Your task to perform on an android device: see tabs open on other devices in the chrome app Image 0: 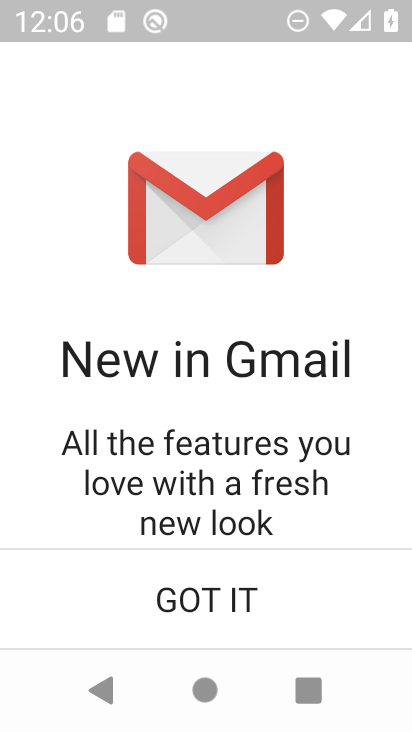
Step 0: press home button
Your task to perform on an android device: see tabs open on other devices in the chrome app Image 1: 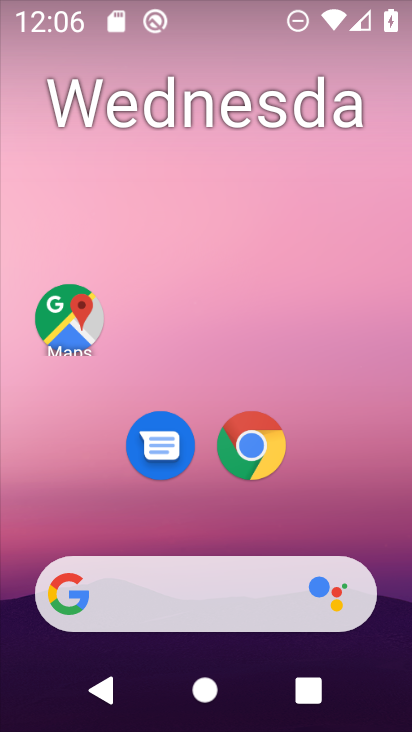
Step 1: click (265, 452)
Your task to perform on an android device: see tabs open on other devices in the chrome app Image 2: 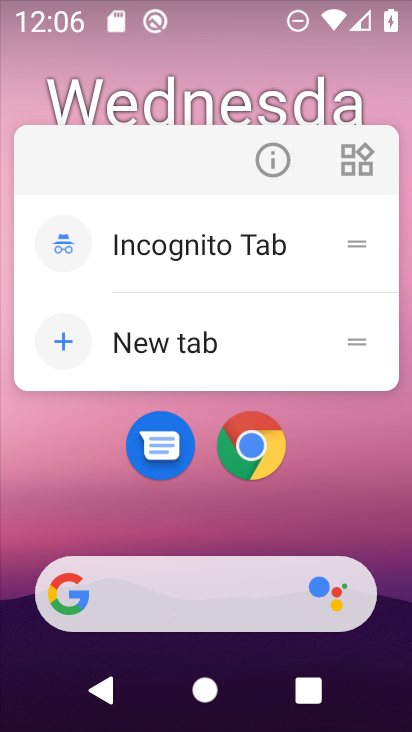
Step 2: click (264, 451)
Your task to perform on an android device: see tabs open on other devices in the chrome app Image 3: 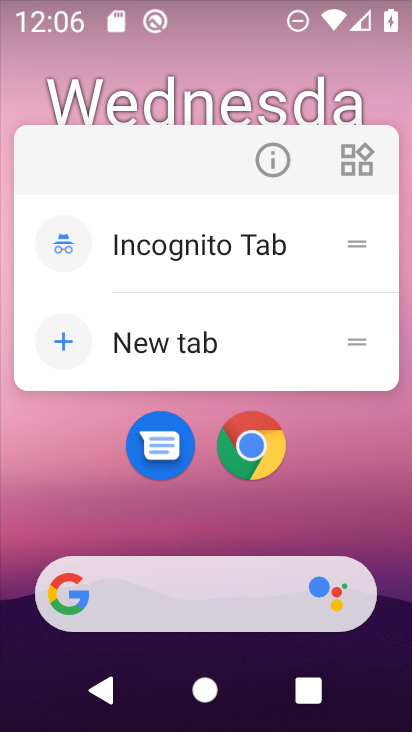
Step 3: click (256, 426)
Your task to perform on an android device: see tabs open on other devices in the chrome app Image 4: 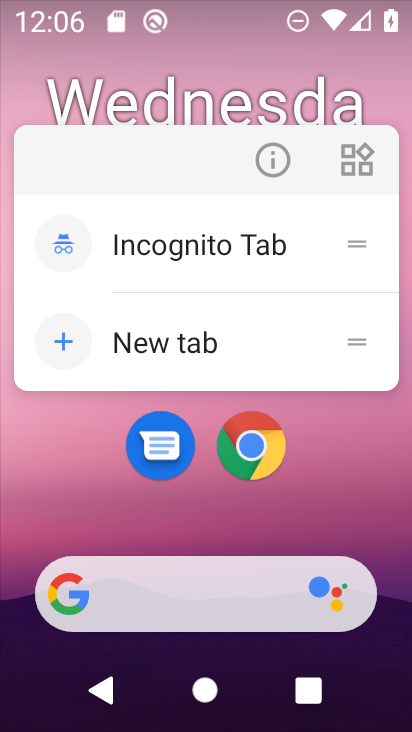
Step 4: click (252, 435)
Your task to perform on an android device: see tabs open on other devices in the chrome app Image 5: 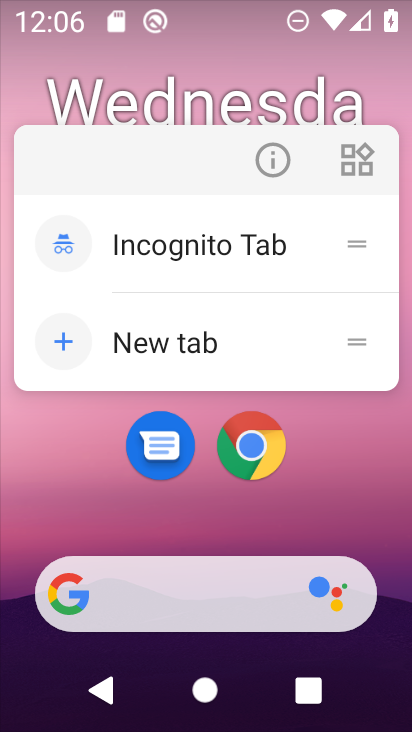
Step 5: click (259, 472)
Your task to perform on an android device: see tabs open on other devices in the chrome app Image 6: 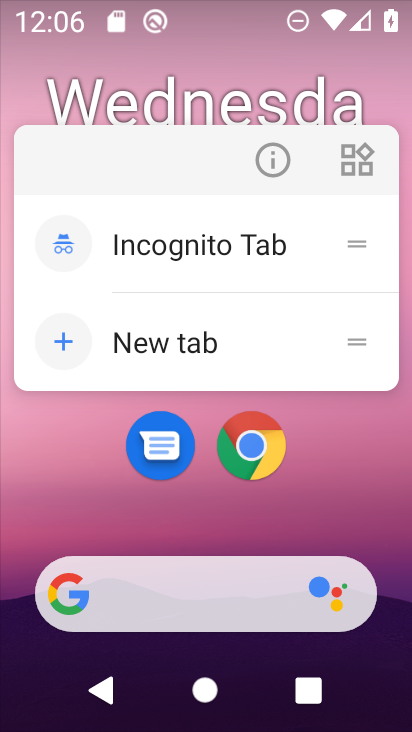
Step 6: click (257, 465)
Your task to perform on an android device: see tabs open on other devices in the chrome app Image 7: 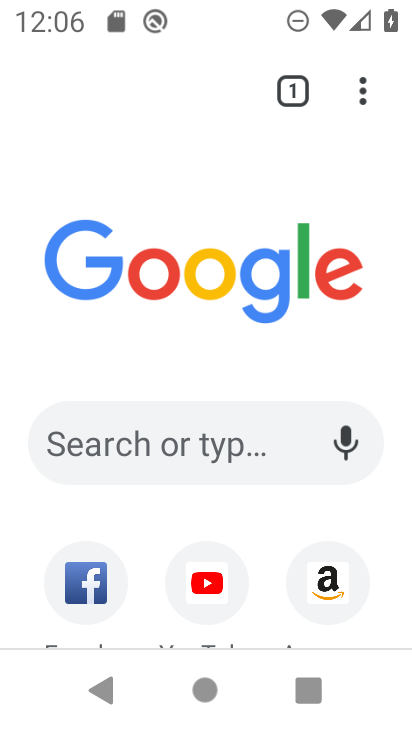
Step 7: drag from (374, 79) to (294, 431)
Your task to perform on an android device: see tabs open on other devices in the chrome app Image 8: 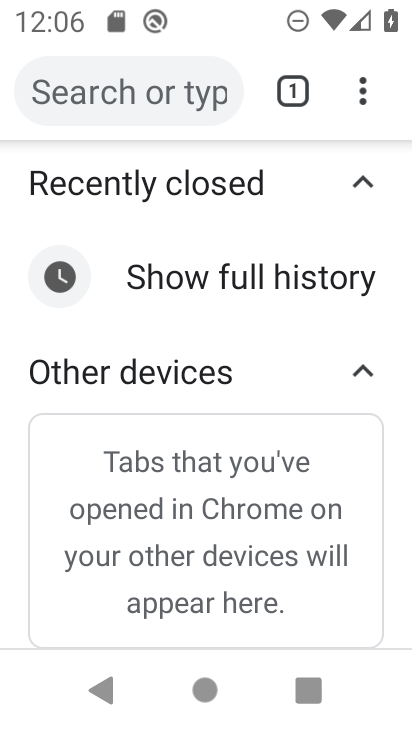
Step 8: drag from (245, 529) to (295, 327)
Your task to perform on an android device: see tabs open on other devices in the chrome app Image 9: 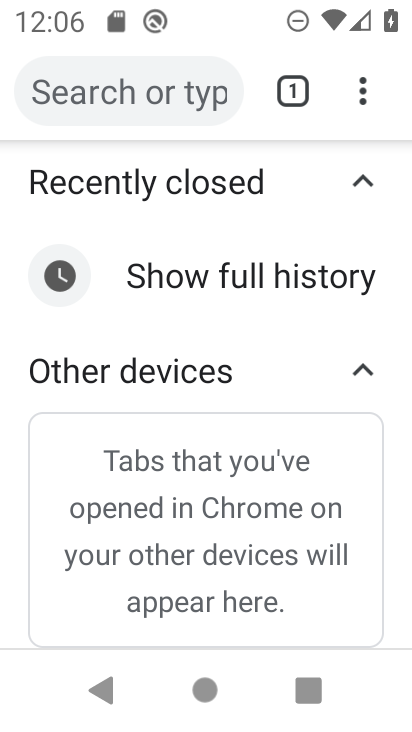
Step 9: click (364, 172)
Your task to perform on an android device: see tabs open on other devices in the chrome app Image 10: 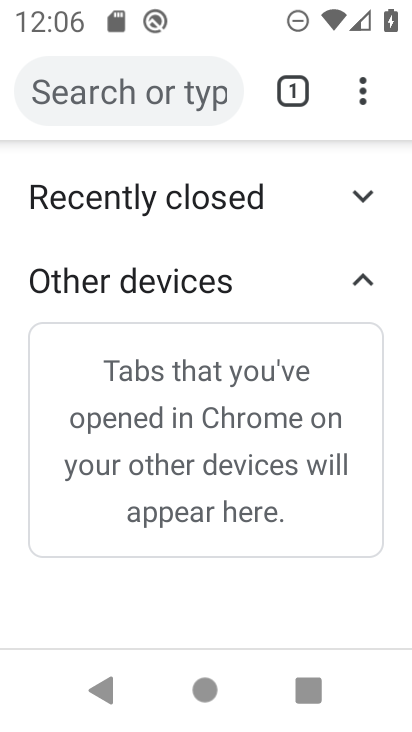
Step 10: click (364, 172)
Your task to perform on an android device: see tabs open on other devices in the chrome app Image 11: 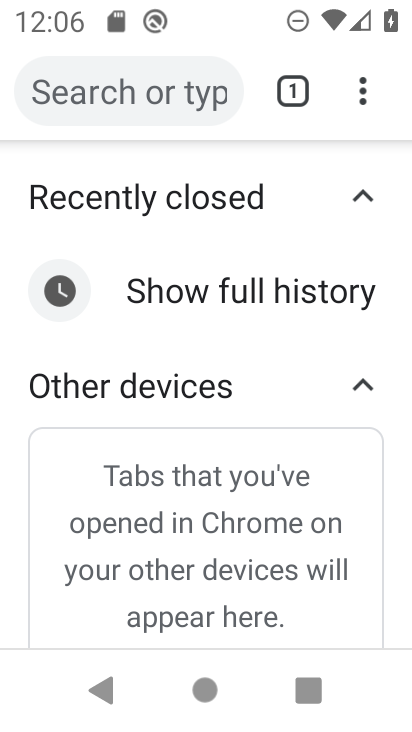
Step 11: task complete